Your task to perform on an android device: turn on javascript in the chrome app Image 0: 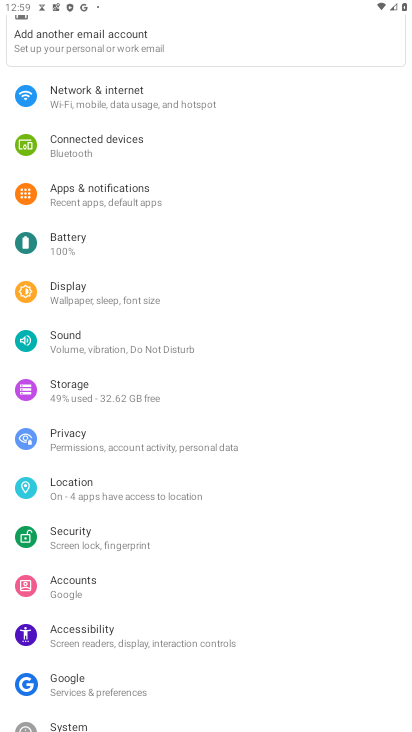
Step 0: press home button
Your task to perform on an android device: turn on javascript in the chrome app Image 1: 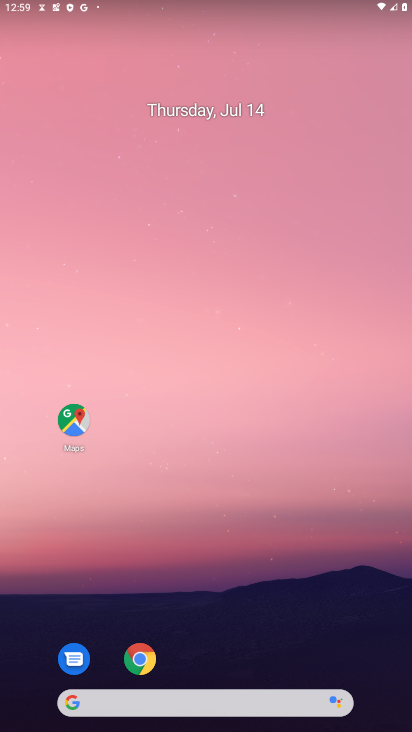
Step 1: click (127, 665)
Your task to perform on an android device: turn on javascript in the chrome app Image 2: 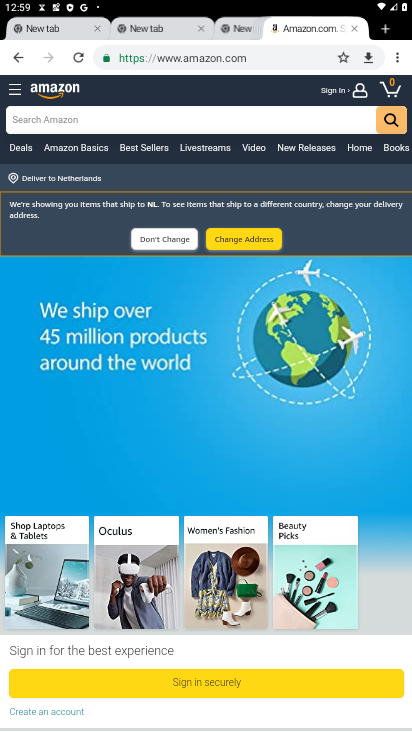
Step 2: click (398, 53)
Your task to perform on an android device: turn on javascript in the chrome app Image 3: 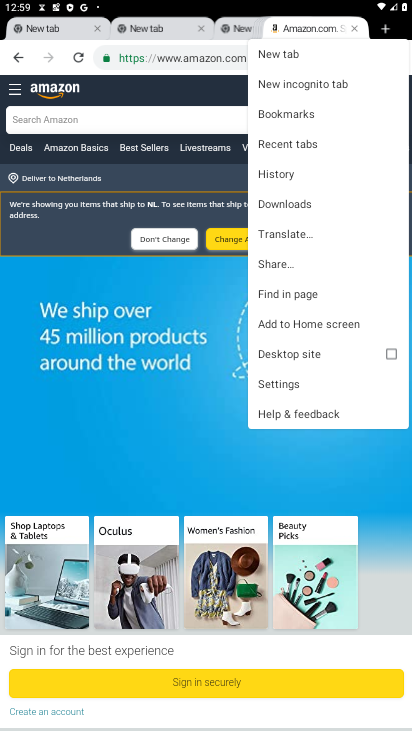
Step 3: click (276, 385)
Your task to perform on an android device: turn on javascript in the chrome app Image 4: 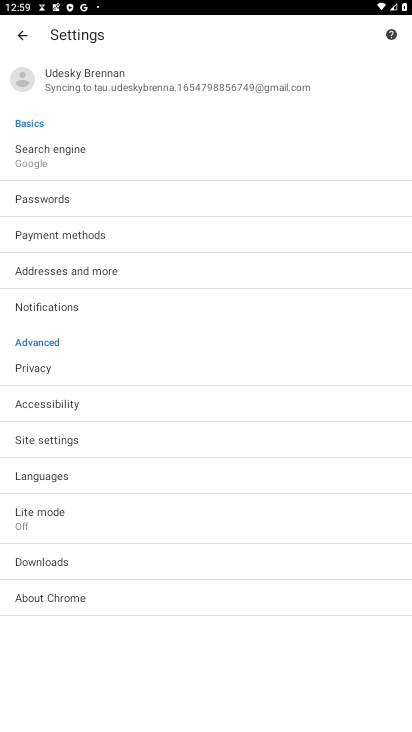
Step 4: click (57, 440)
Your task to perform on an android device: turn on javascript in the chrome app Image 5: 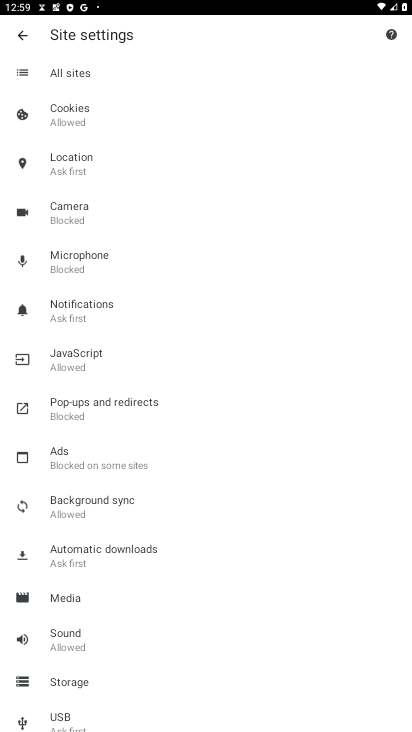
Step 5: click (77, 365)
Your task to perform on an android device: turn on javascript in the chrome app Image 6: 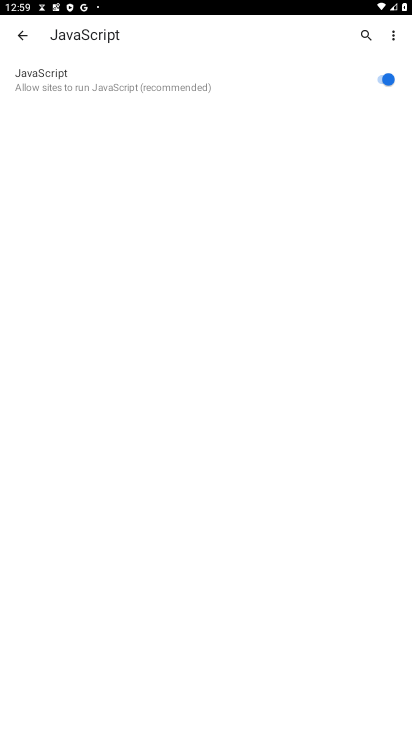
Step 6: task complete